Your task to perform on an android device: What is the recent news? Image 0: 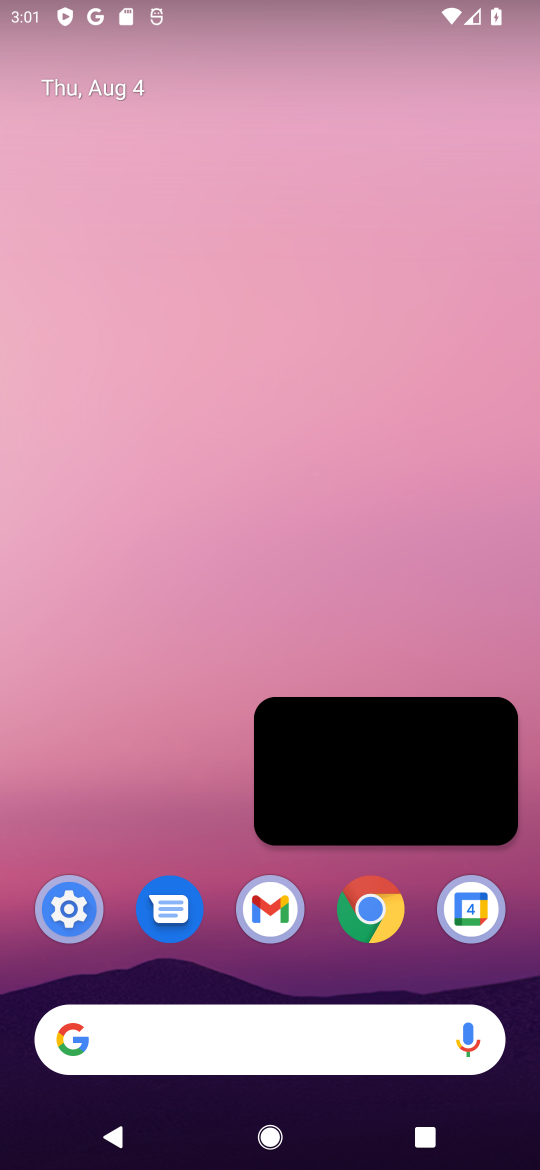
Step 0: press home button
Your task to perform on an android device: What is the recent news? Image 1: 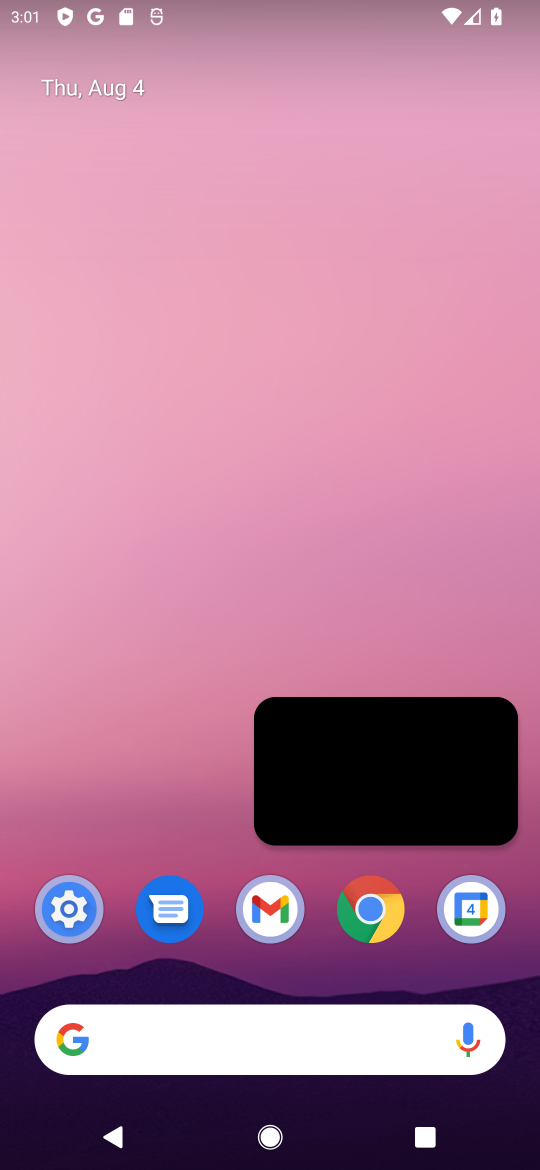
Step 1: click (179, 1043)
Your task to perform on an android device: What is the recent news? Image 2: 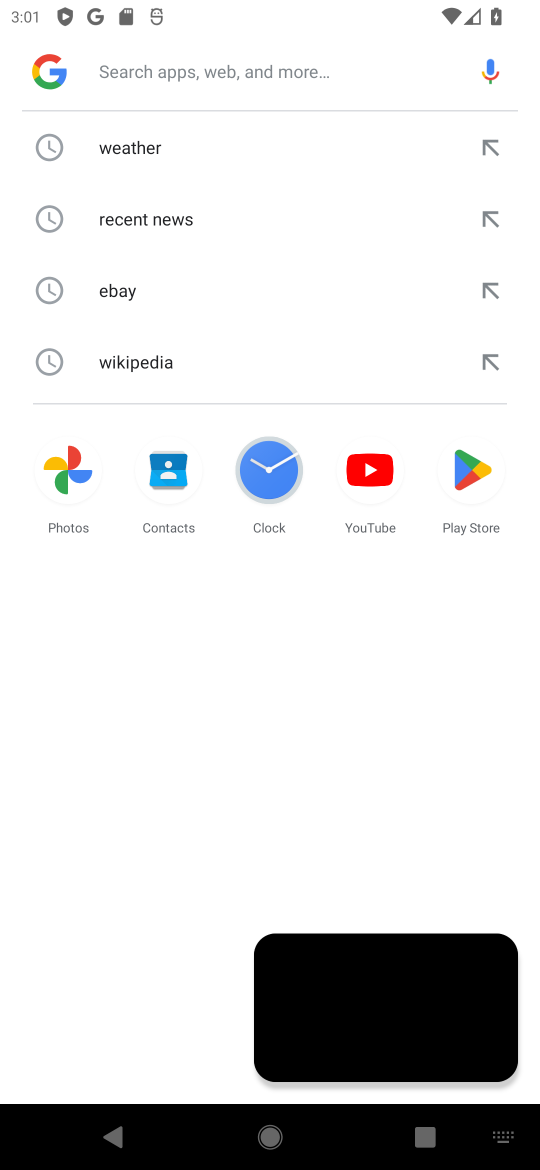
Step 2: click (417, 997)
Your task to perform on an android device: What is the recent news? Image 3: 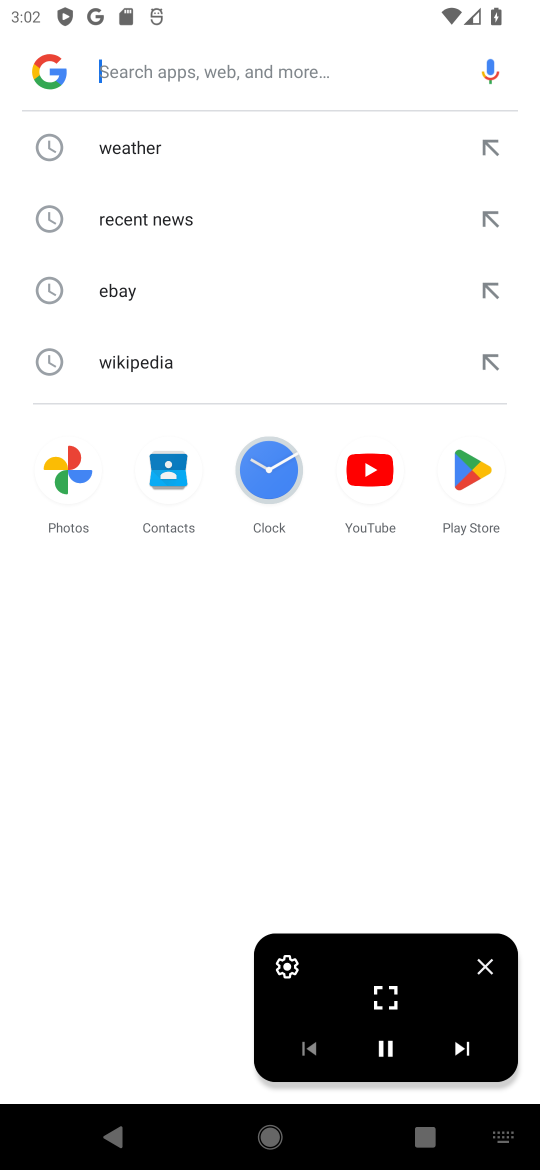
Step 3: click (488, 966)
Your task to perform on an android device: What is the recent news? Image 4: 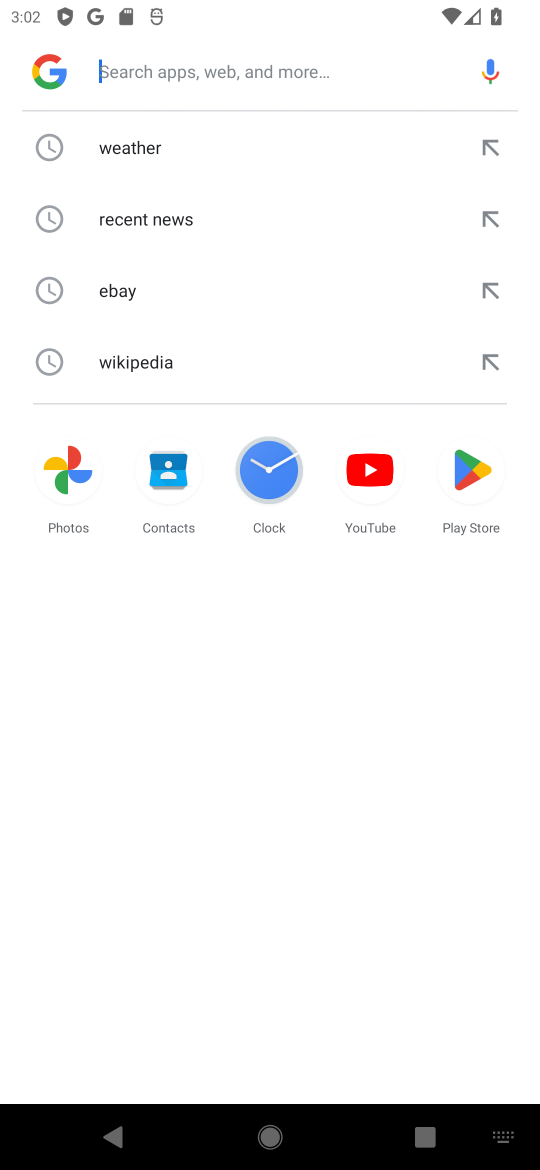
Step 4: click (142, 221)
Your task to perform on an android device: What is the recent news? Image 5: 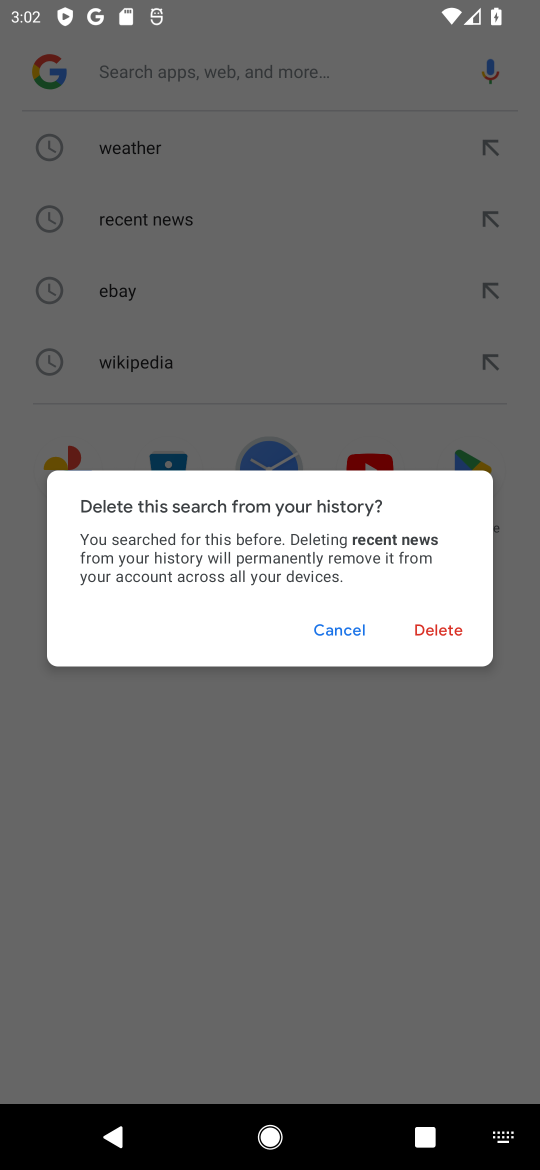
Step 5: click (332, 791)
Your task to perform on an android device: What is the recent news? Image 6: 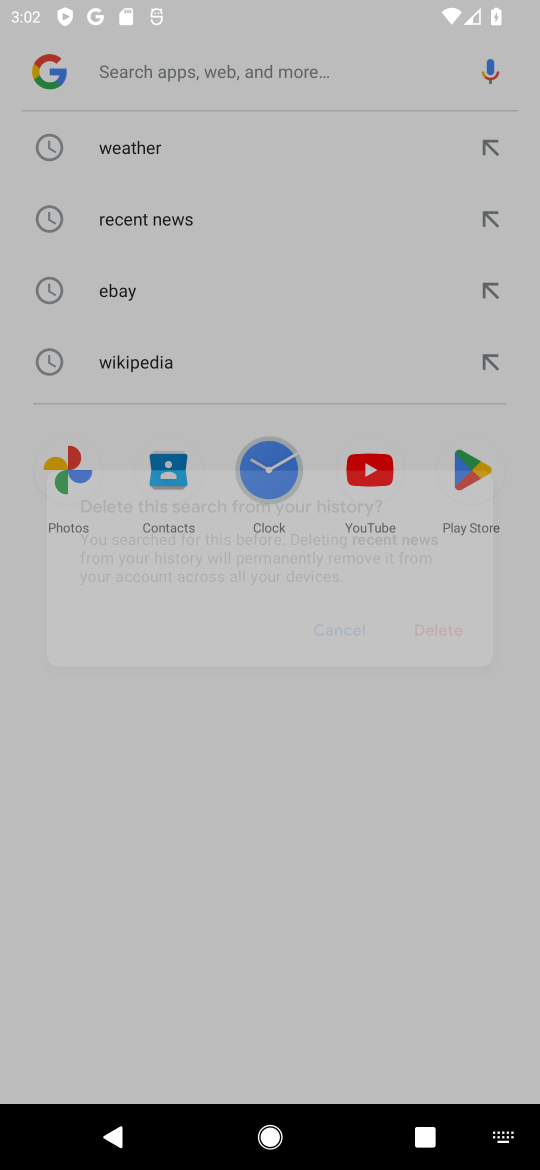
Step 6: click (323, 625)
Your task to perform on an android device: What is the recent news? Image 7: 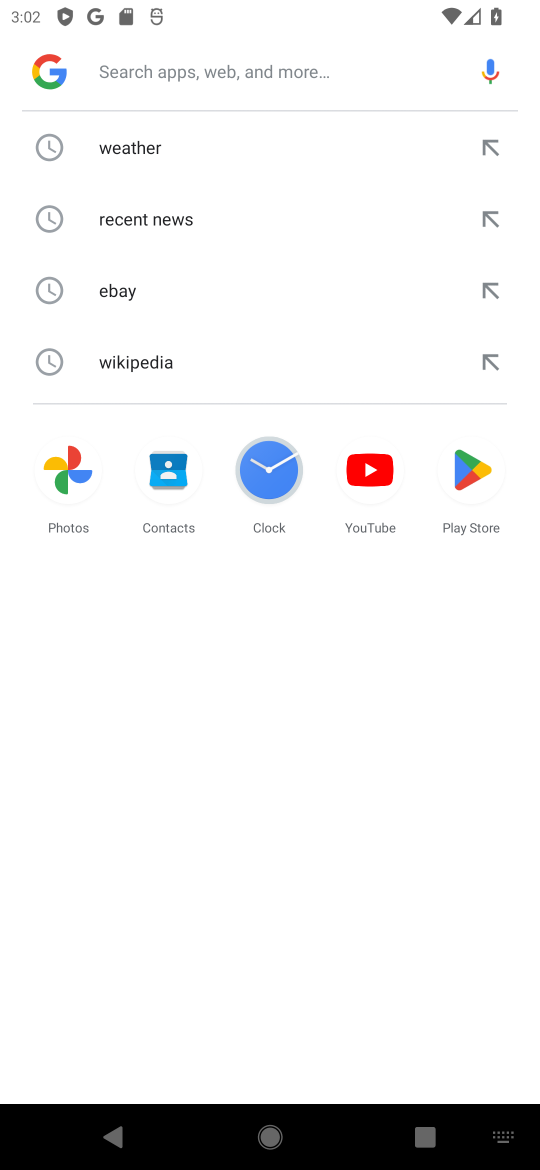
Step 7: click (120, 218)
Your task to perform on an android device: What is the recent news? Image 8: 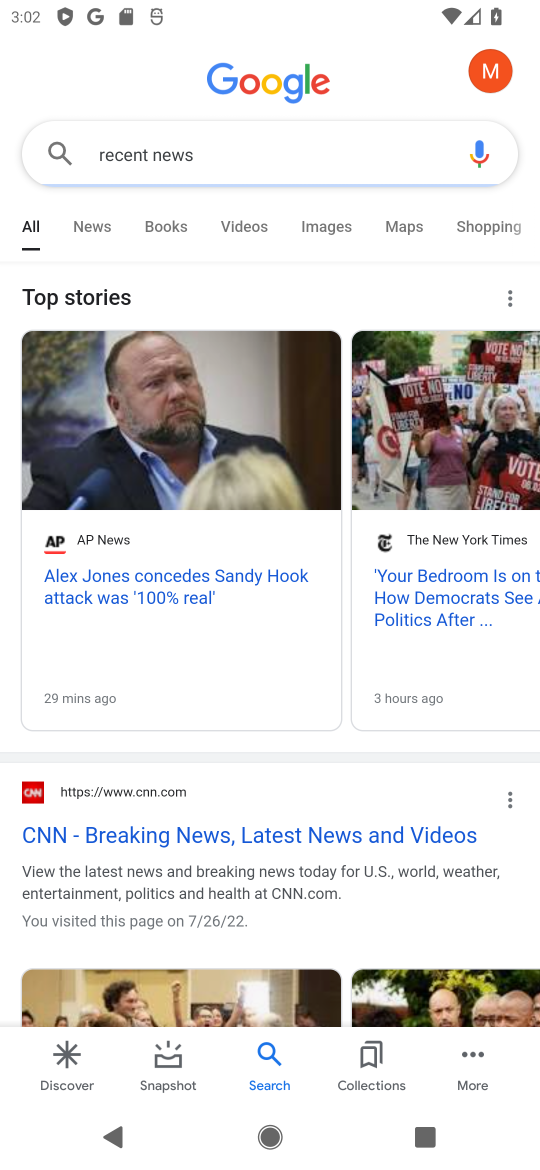
Step 8: click (96, 231)
Your task to perform on an android device: What is the recent news? Image 9: 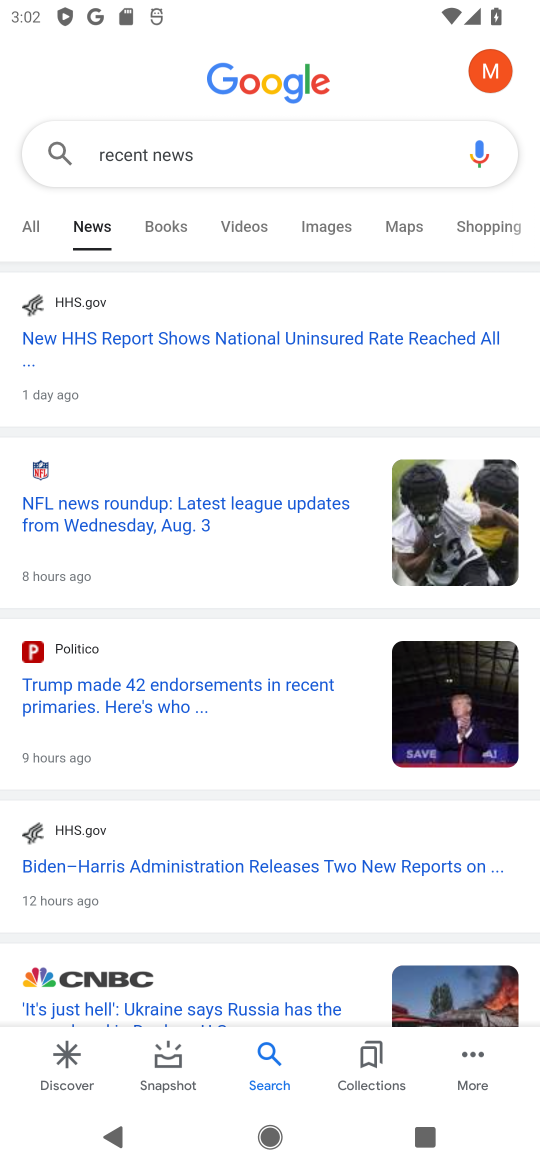
Step 9: task complete